Your task to perform on an android device: change text size in settings app Image 0: 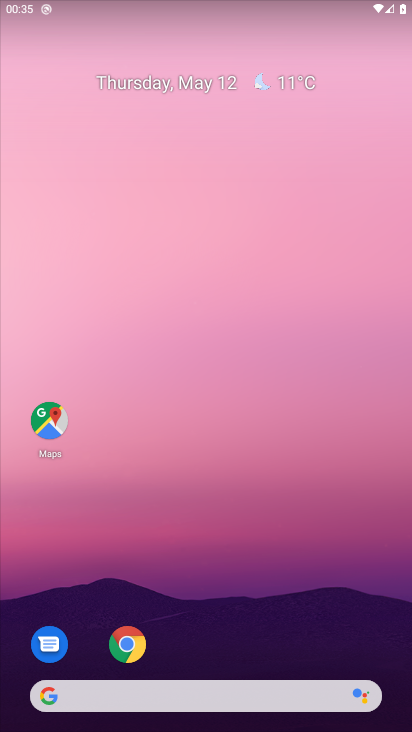
Step 0: drag from (202, 654) to (220, 57)
Your task to perform on an android device: change text size in settings app Image 1: 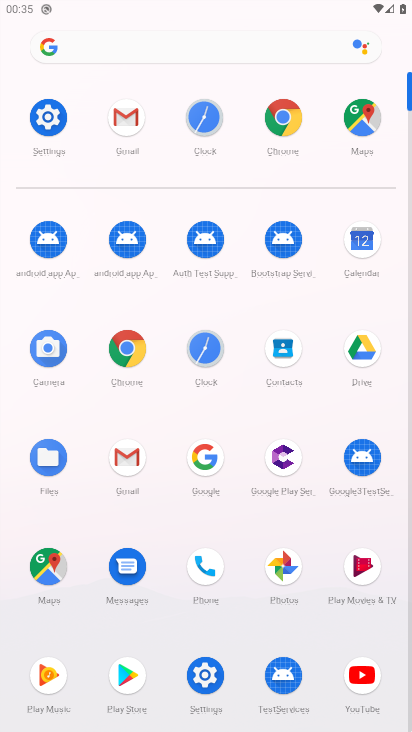
Step 1: click (44, 119)
Your task to perform on an android device: change text size in settings app Image 2: 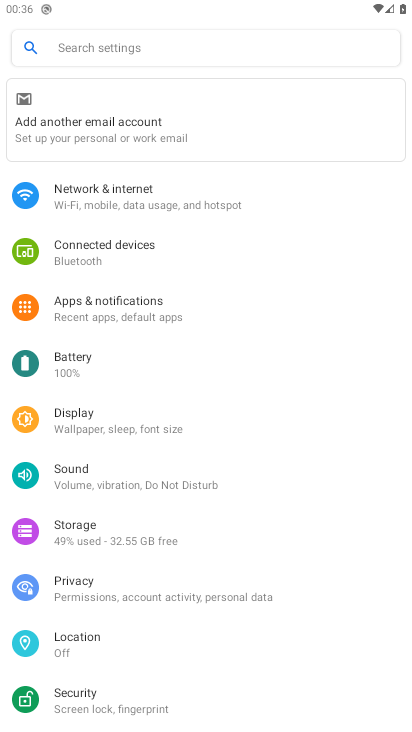
Step 2: drag from (143, 671) to (155, 108)
Your task to perform on an android device: change text size in settings app Image 3: 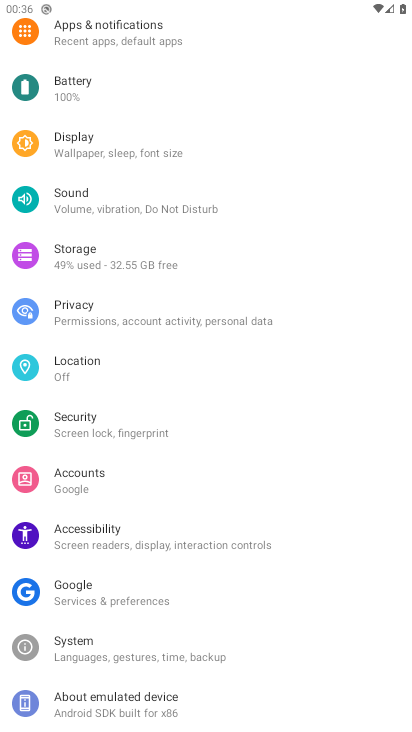
Step 3: click (90, 147)
Your task to perform on an android device: change text size in settings app Image 4: 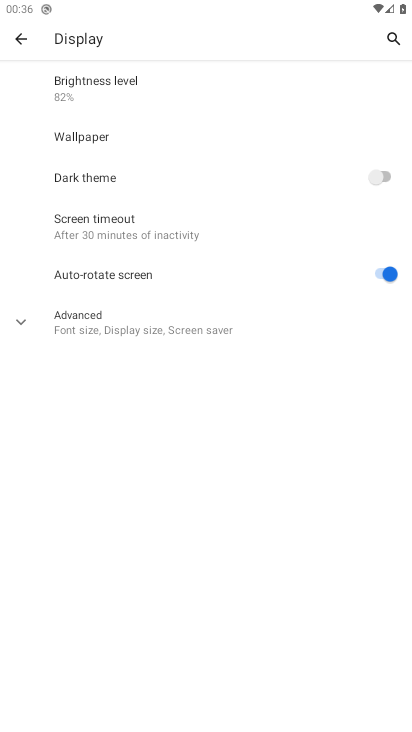
Step 4: click (17, 315)
Your task to perform on an android device: change text size in settings app Image 5: 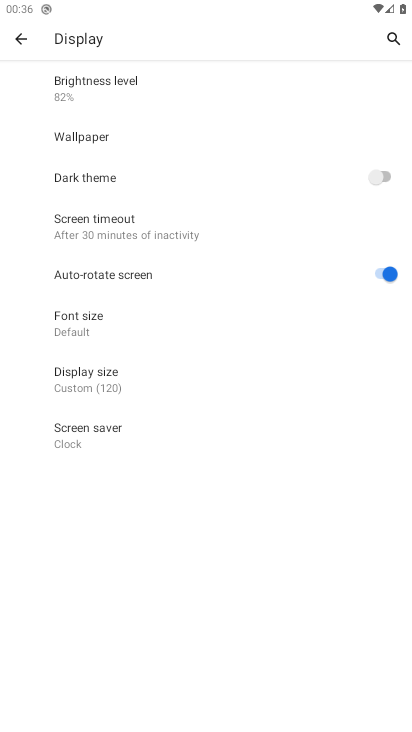
Step 5: click (103, 320)
Your task to perform on an android device: change text size in settings app Image 6: 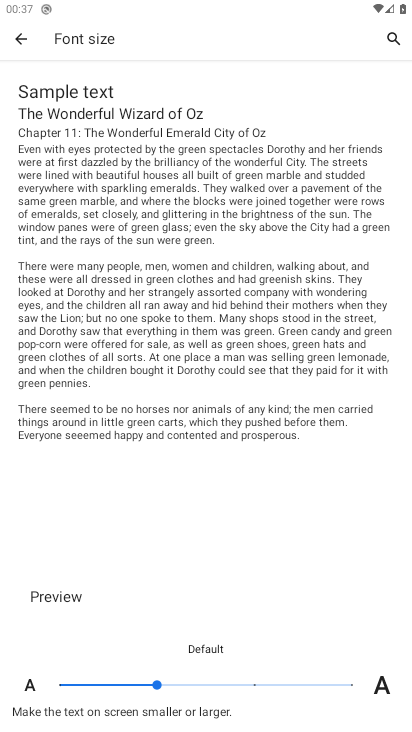
Step 6: click (64, 683)
Your task to perform on an android device: change text size in settings app Image 7: 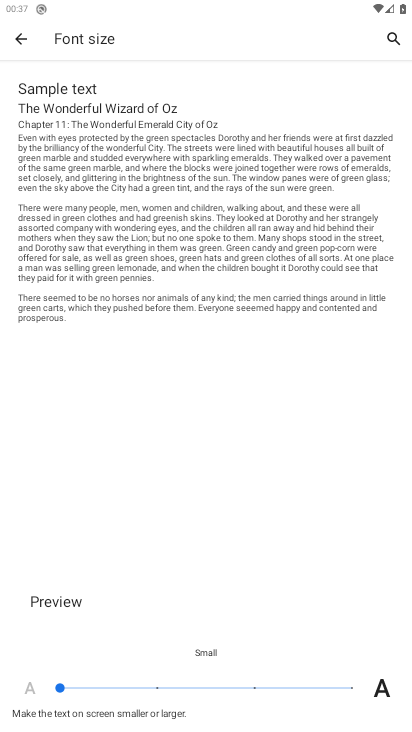
Step 7: task complete